Your task to perform on an android device: Open Google Image 0: 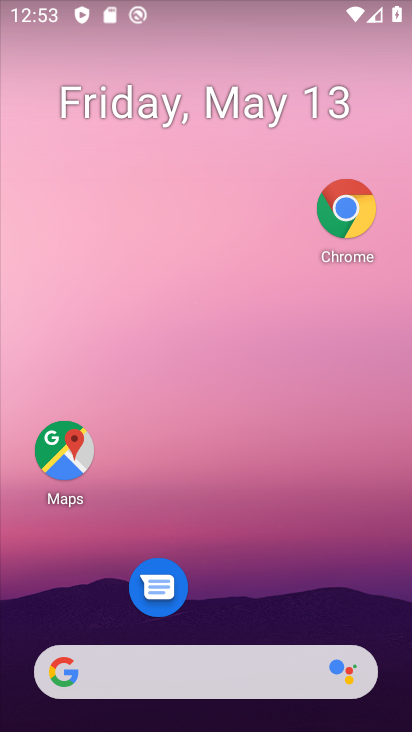
Step 0: drag from (216, 597) to (222, 70)
Your task to perform on an android device: Open Google Image 1: 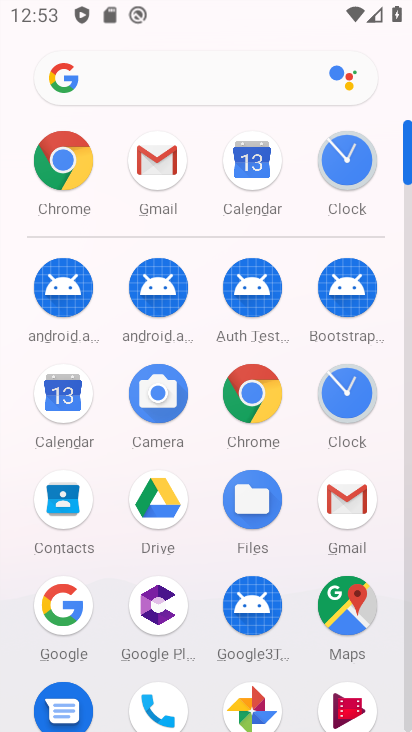
Step 1: click (67, 615)
Your task to perform on an android device: Open Google Image 2: 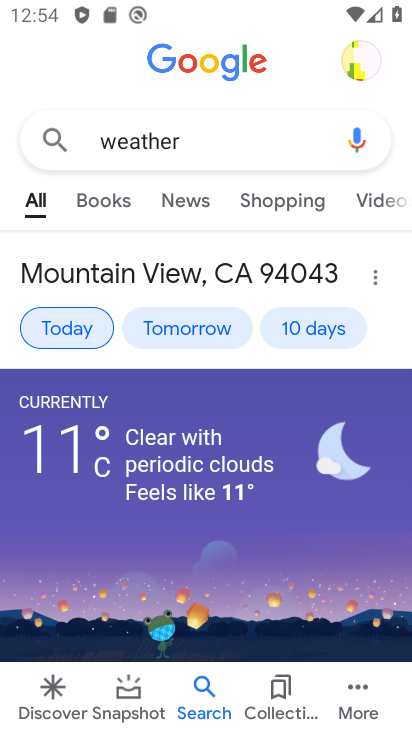
Step 2: task complete